Your task to perform on an android device: Search for seafood restaurants on Google Maps Image 0: 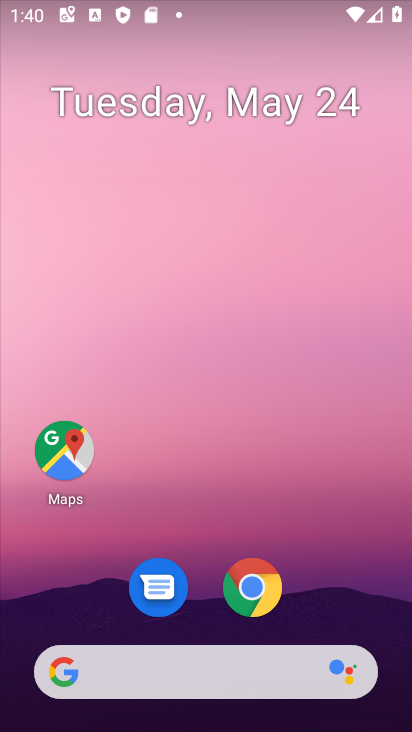
Step 0: click (69, 463)
Your task to perform on an android device: Search for seafood restaurants on Google Maps Image 1: 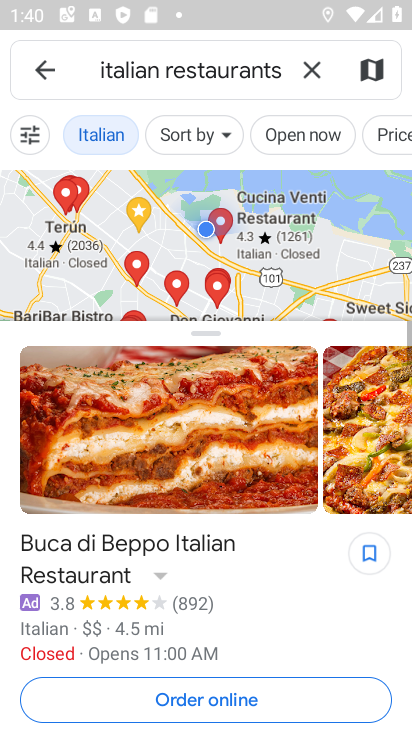
Step 1: click (323, 65)
Your task to perform on an android device: Search for seafood restaurants on Google Maps Image 2: 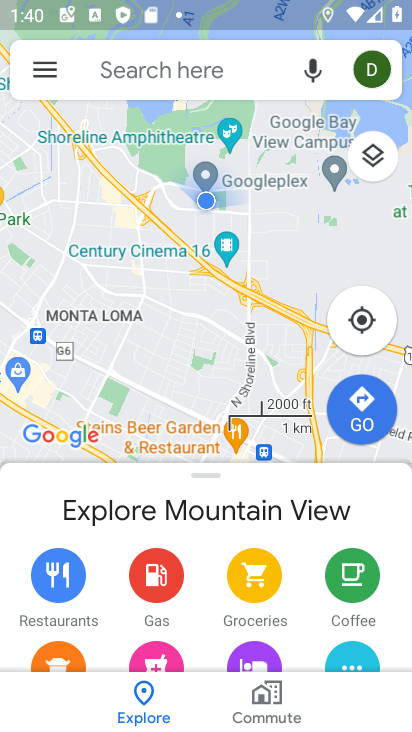
Step 2: click (201, 74)
Your task to perform on an android device: Search for seafood restaurants on Google Maps Image 3: 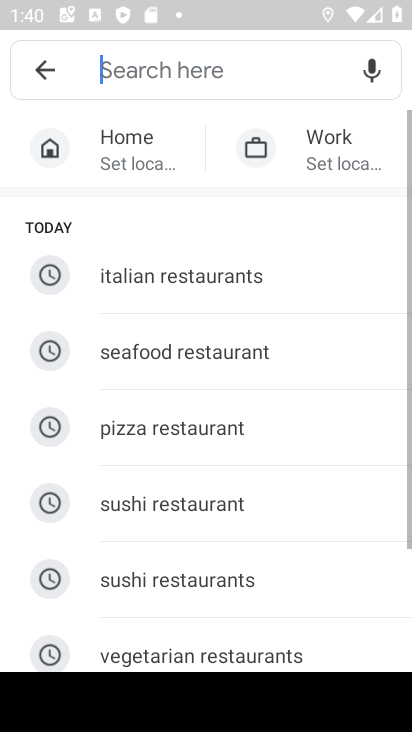
Step 3: click (222, 345)
Your task to perform on an android device: Search for seafood restaurants on Google Maps Image 4: 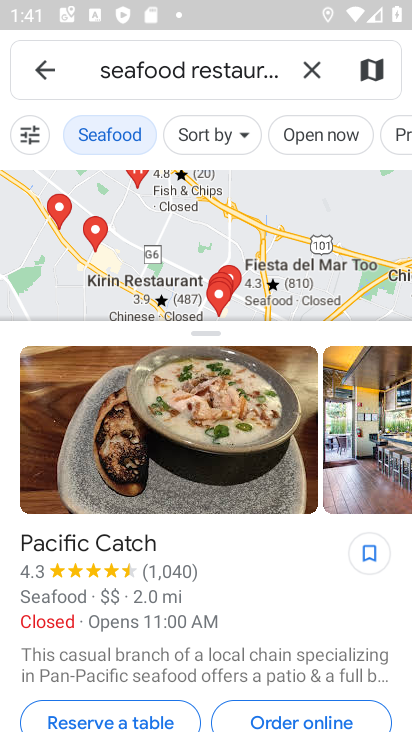
Step 4: task complete